Your task to perform on an android device: Go to Maps Image 0: 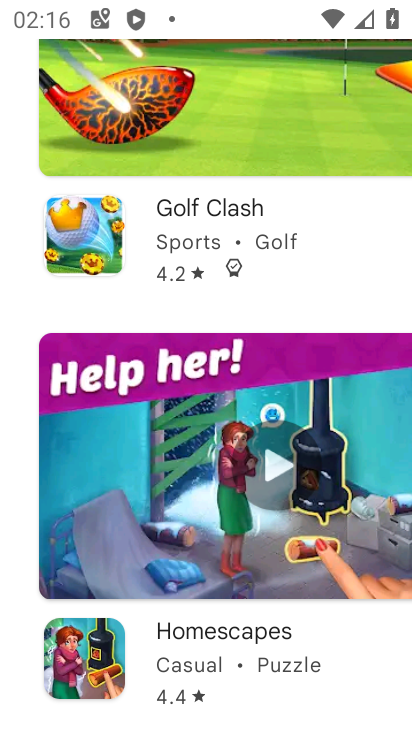
Step 0: press home button
Your task to perform on an android device: Go to Maps Image 1: 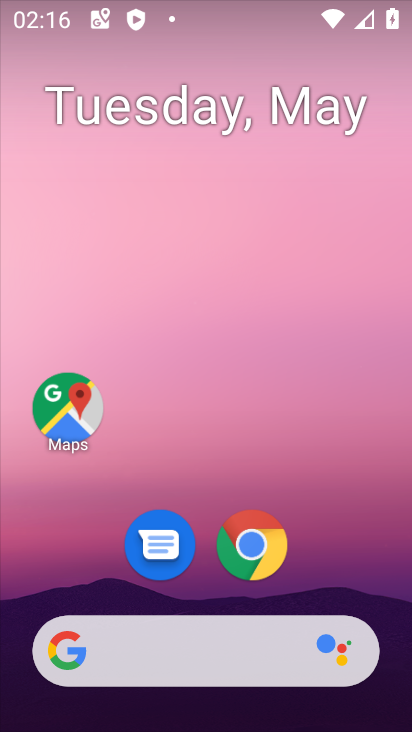
Step 1: click (66, 405)
Your task to perform on an android device: Go to Maps Image 2: 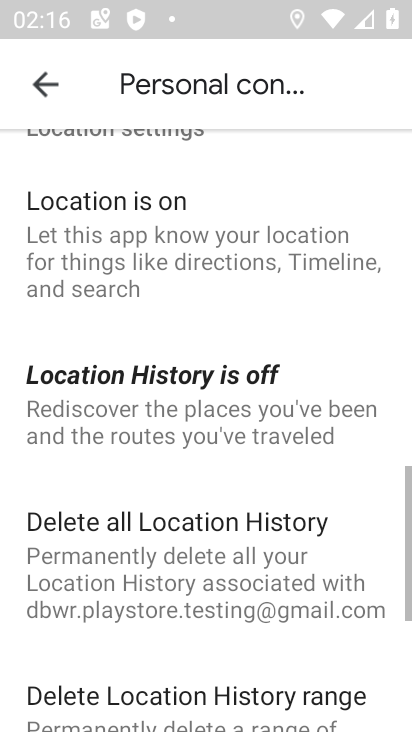
Step 2: task complete